Your task to perform on an android device: Open maps Image 0: 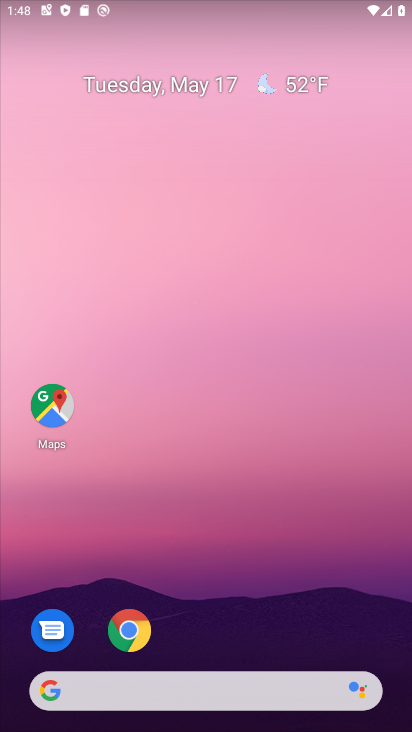
Step 0: click (56, 408)
Your task to perform on an android device: Open maps Image 1: 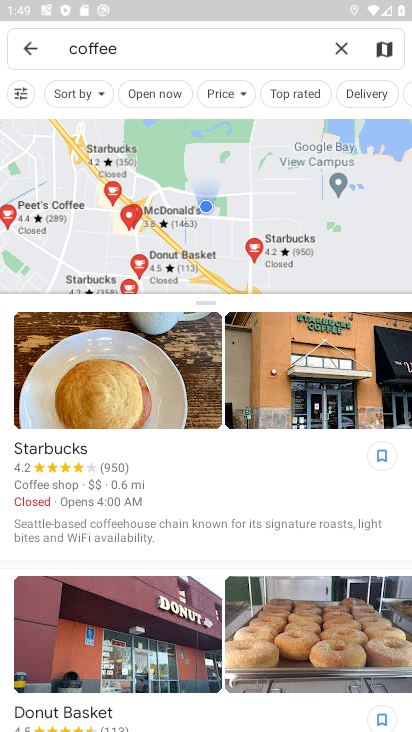
Step 1: task complete